Your task to perform on an android device: open app "Flipkart Online Shopping App" (install if not already installed), go to login, and select forgot password Image 0: 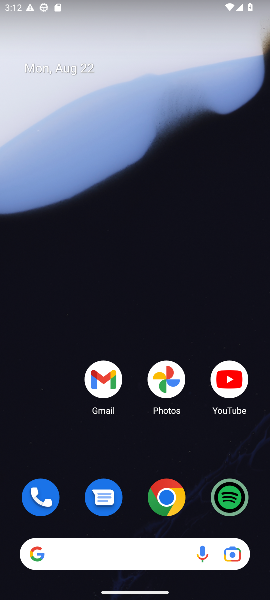
Step 0: drag from (135, 441) to (144, 77)
Your task to perform on an android device: open app "Flipkart Online Shopping App" (install if not already installed), go to login, and select forgot password Image 1: 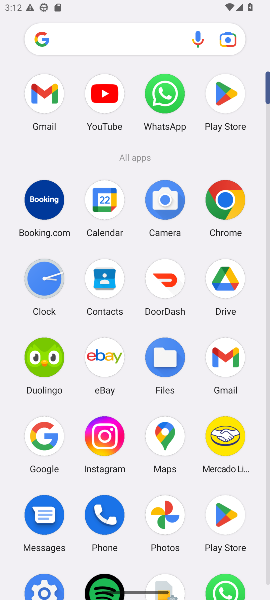
Step 1: click (217, 99)
Your task to perform on an android device: open app "Flipkart Online Shopping App" (install if not already installed), go to login, and select forgot password Image 2: 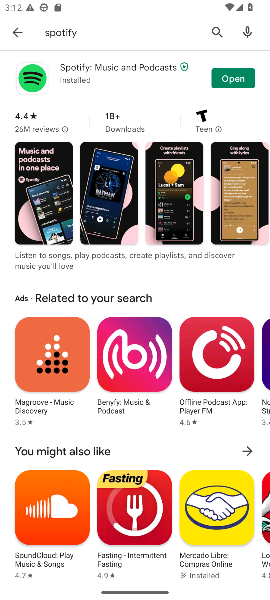
Step 2: click (216, 33)
Your task to perform on an android device: open app "Flipkart Online Shopping App" (install if not already installed), go to login, and select forgot password Image 3: 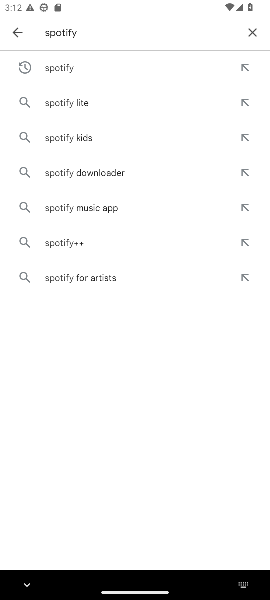
Step 3: click (251, 27)
Your task to perform on an android device: open app "Flipkart Online Shopping App" (install if not already installed), go to login, and select forgot password Image 4: 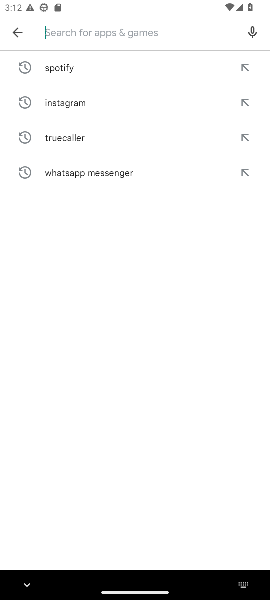
Step 4: type "Flipkart Online Shopping App"
Your task to perform on an android device: open app "Flipkart Online Shopping App" (install if not already installed), go to login, and select forgot password Image 5: 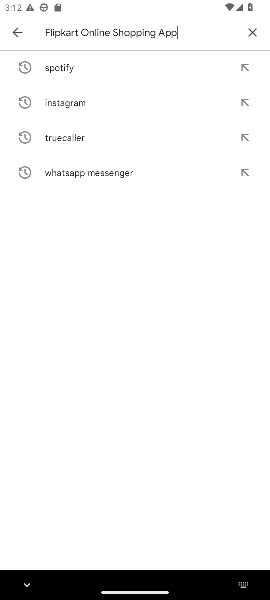
Step 5: type ""
Your task to perform on an android device: open app "Flipkart Online Shopping App" (install if not already installed), go to login, and select forgot password Image 6: 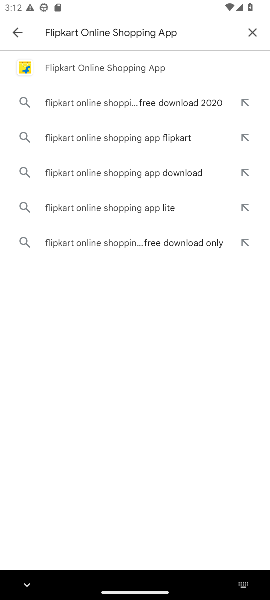
Step 6: click (157, 73)
Your task to perform on an android device: open app "Flipkart Online Shopping App" (install if not already installed), go to login, and select forgot password Image 7: 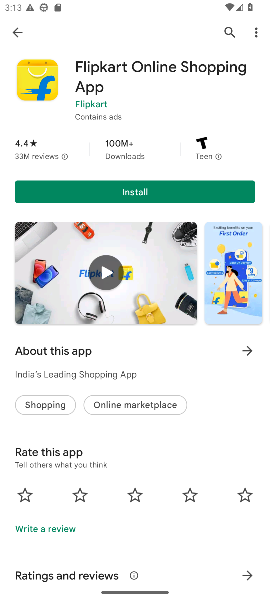
Step 7: click (140, 196)
Your task to perform on an android device: open app "Flipkart Online Shopping App" (install if not already installed), go to login, and select forgot password Image 8: 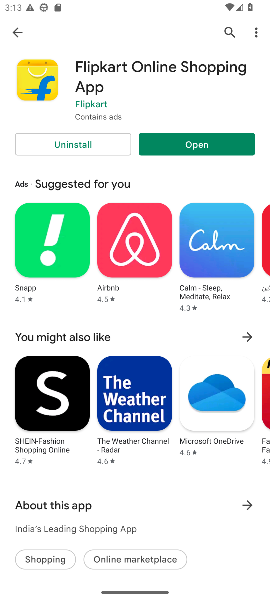
Step 8: click (183, 144)
Your task to perform on an android device: open app "Flipkart Online Shopping App" (install if not already installed), go to login, and select forgot password Image 9: 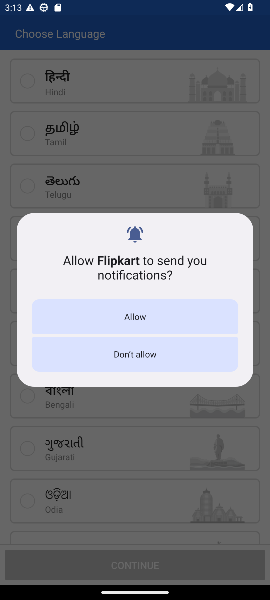
Step 9: click (109, 316)
Your task to perform on an android device: open app "Flipkart Online Shopping App" (install if not already installed), go to login, and select forgot password Image 10: 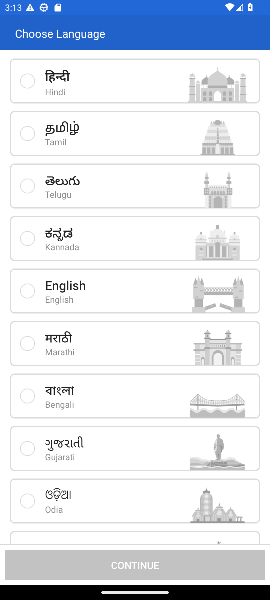
Step 10: task complete